Your task to perform on an android device: Go to eBay Image 0: 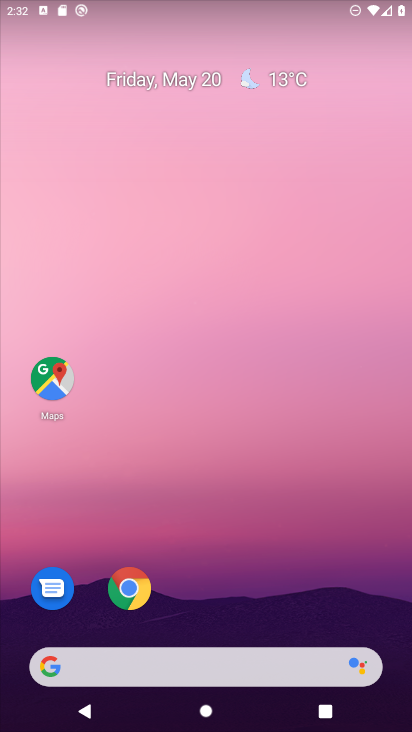
Step 0: click (128, 591)
Your task to perform on an android device: Go to eBay Image 1: 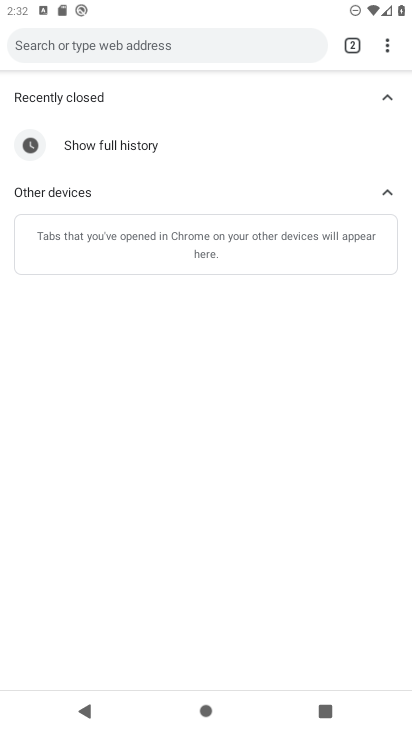
Step 1: click (133, 39)
Your task to perform on an android device: Go to eBay Image 2: 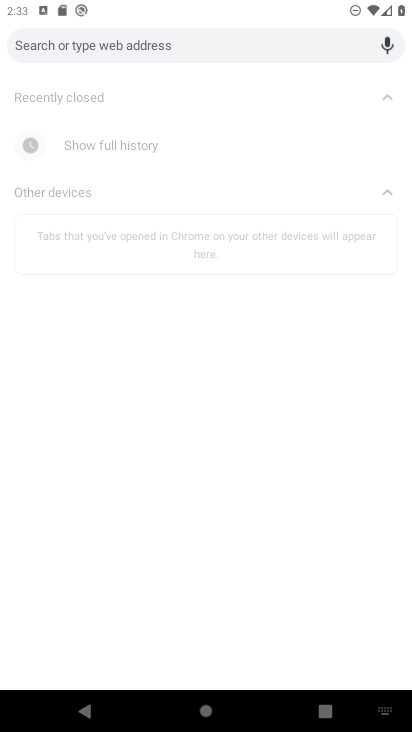
Step 2: type "ebay"
Your task to perform on an android device: Go to eBay Image 3: 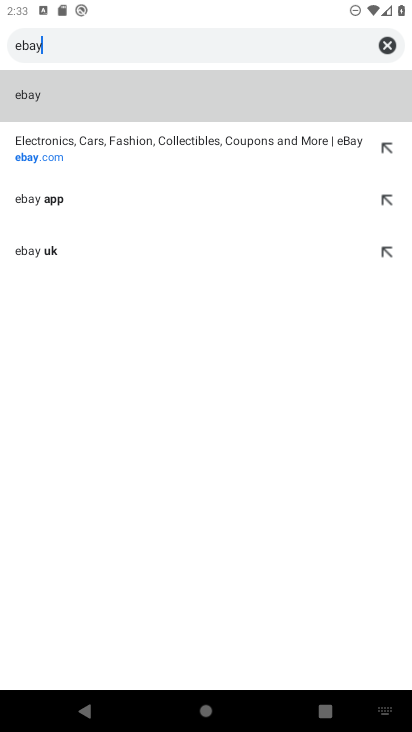
Step 3: click (78, 141)
Your task to perform on an android device: Go to eBay Image 4: 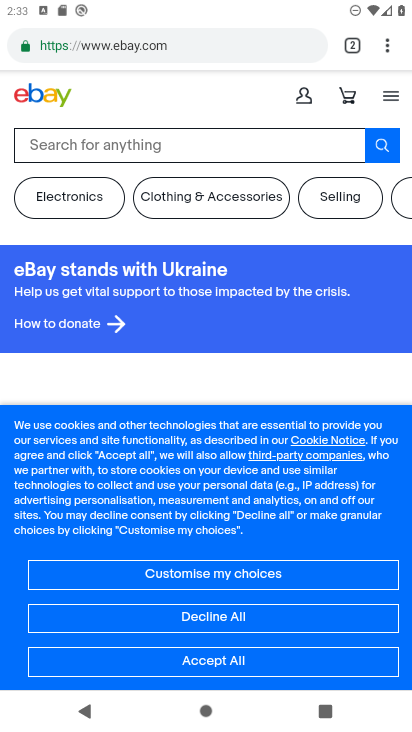
Step 4: task complete